Your task to perform on an android device: allow notifications from all sites in the chrome app Image 0: 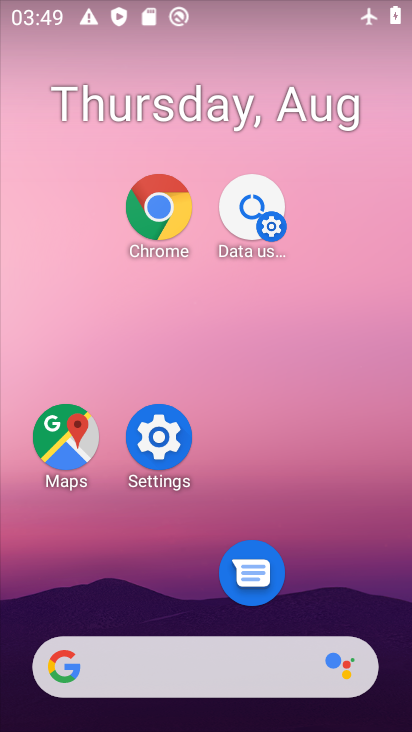
Step 0: drag from (250, 546) to (187, 229)
Your task to perform on an android device: allow notifications from all sites in the chrome app Image 1: 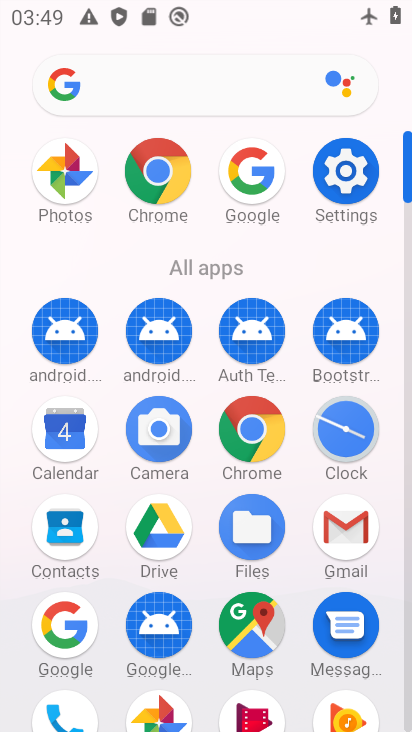
Step 1: click (174, 159)
Your task to perform on an android device: allow notifications from all sites in the chrome app Image 2: 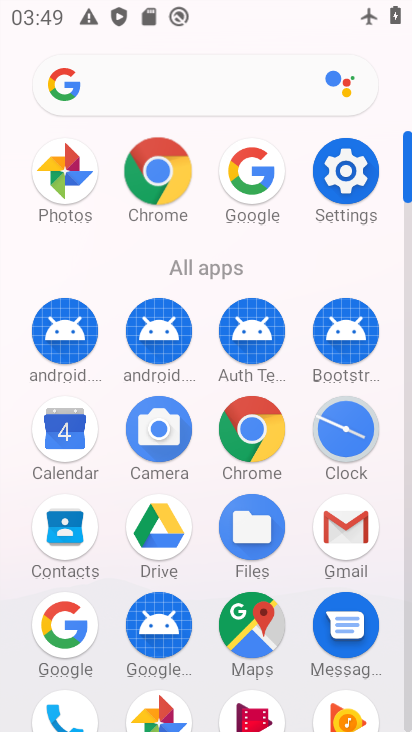
Step 2: click (164, 159)
Your task to perform on an android device: allow notifications from all sites in the chrome app Image 3: 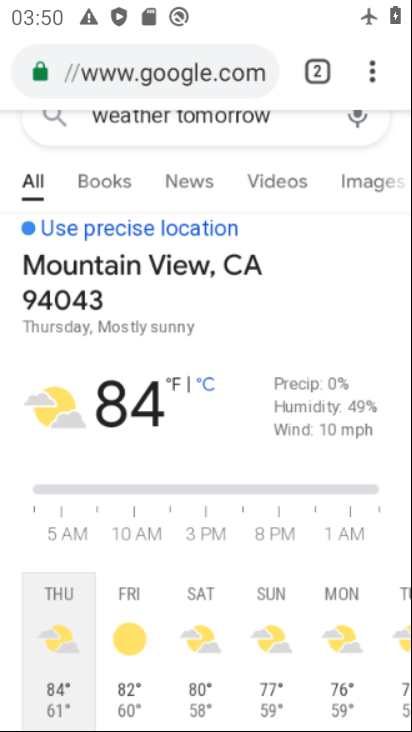
Step 3: click (165, 162)
Your task to perform on an android device: allow notifications from all sites in the chrome app Image 4: 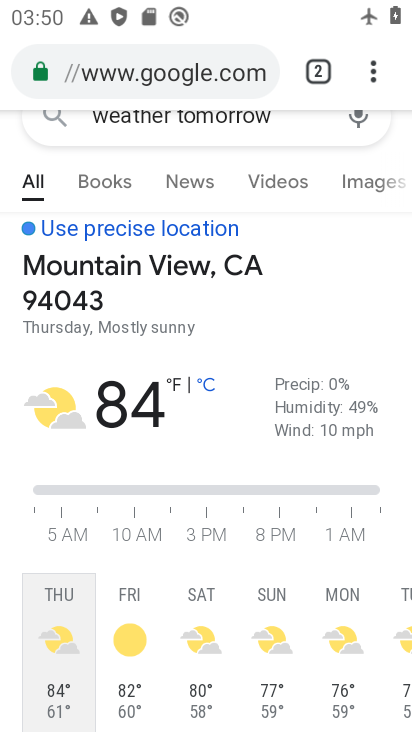
Step 4: drag from (366, 68) to (108, 569)
Your task to perform on an android device: allow notifications from all sites in the chrome app Image 5: 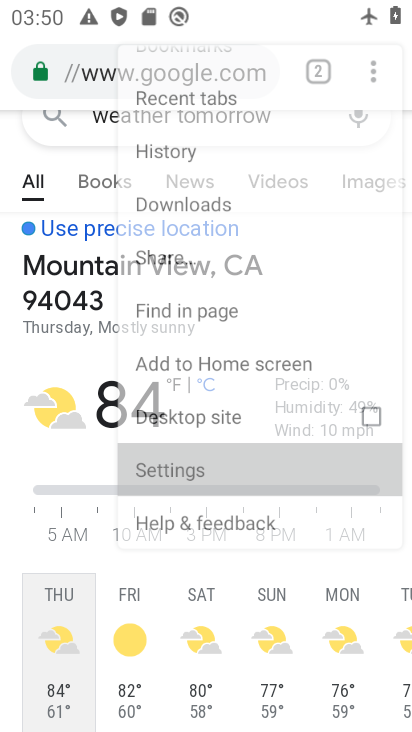
Step 5: click (114, 568)
Your task to perform on an android device: allow notifications from all sites in the chrome app Image 6: 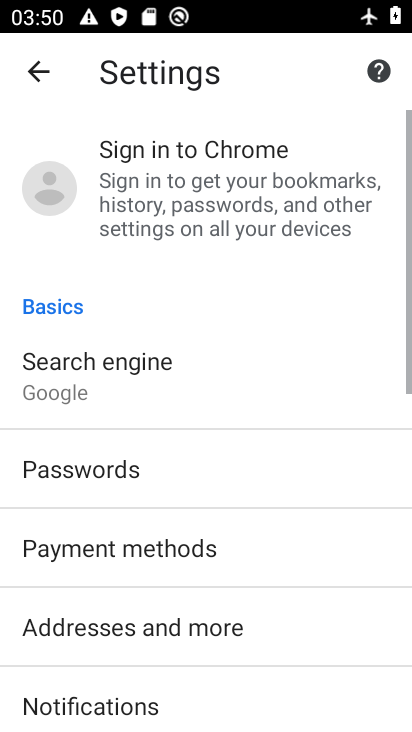
Step 6: drag from (93, 578) to (30, 226)
Your task to perform on an android device: allow notifications from all sites in the chrome app Image 7: 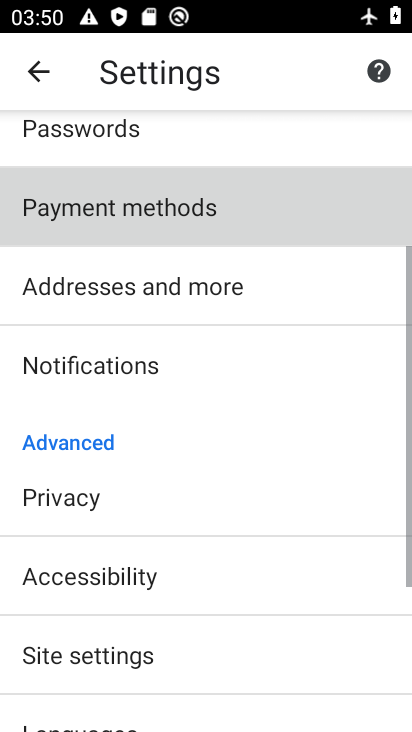
Step 7: drag from (36, 621) to (2, 404)
Your task to perform on an android device: allow notifications from all sites in the chrome app Image 8: 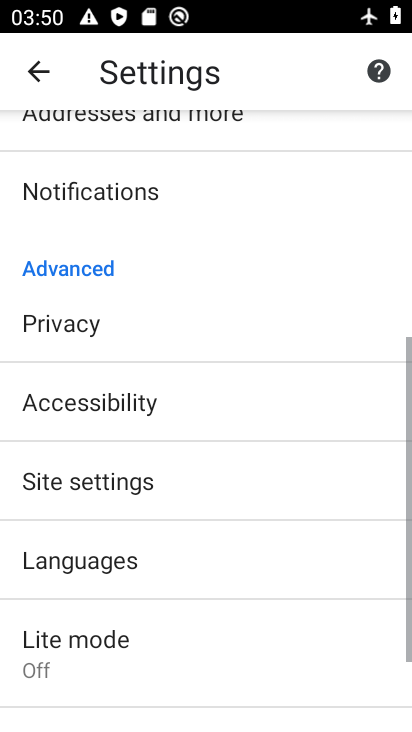
Step 8: drag from (69, 568) to (69, 334)
Your task to perform on an android device: allow notifications from all sites in the chrome app Image 9: 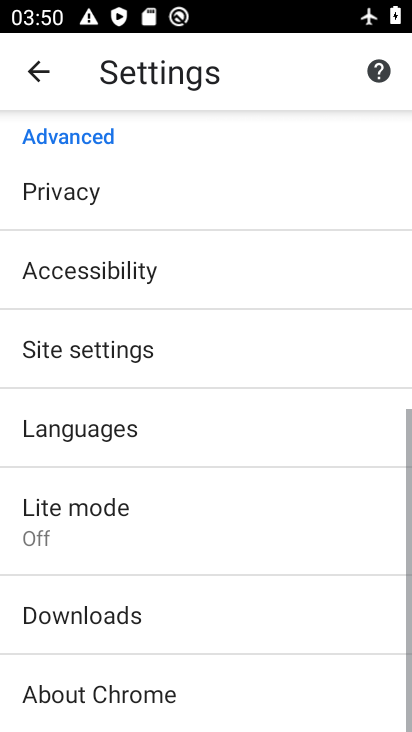
Step 9: click (90, 342)
Your task to perform on an android device: allow notifications from all sites in the chrome app Image 10: 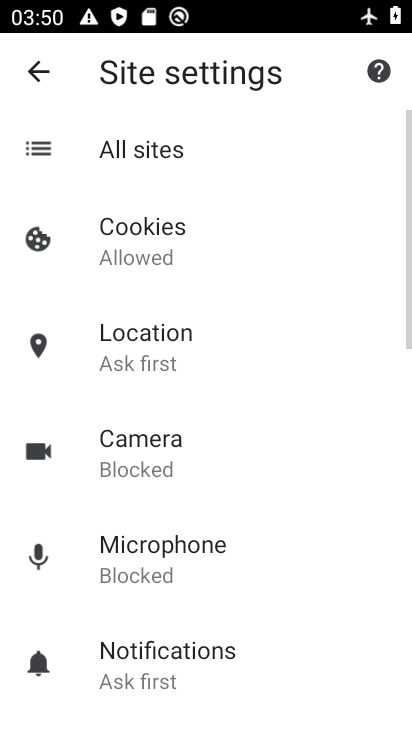
Step 10: click (155, 150)
Your task to perform on an android device: allow notifications from all sites in the chrome app Image 11: 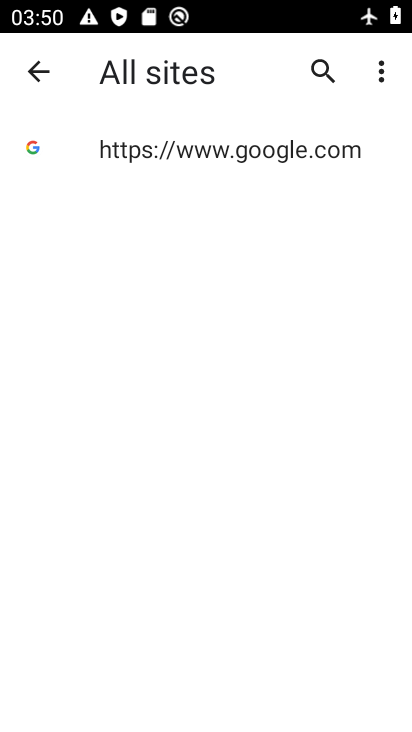
Step 11: click (193, 138)
Your task to perform on an android device: allow notifications from all sites in the chrome app Image 12: 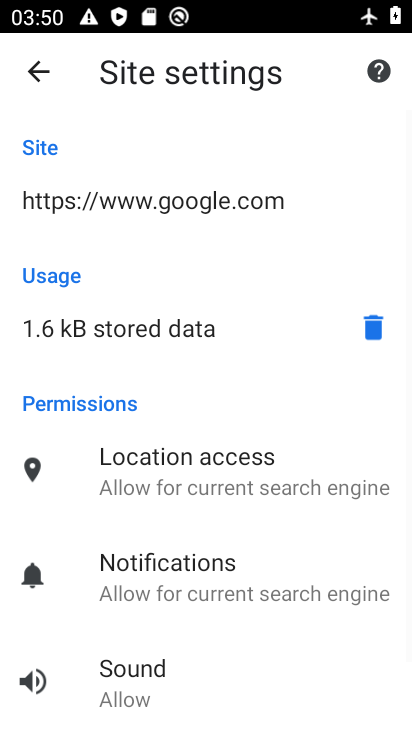
Step 12: click (104, 569)
Your task to perform on an android device: allow notifications from all sites in the chrome app Image 13: 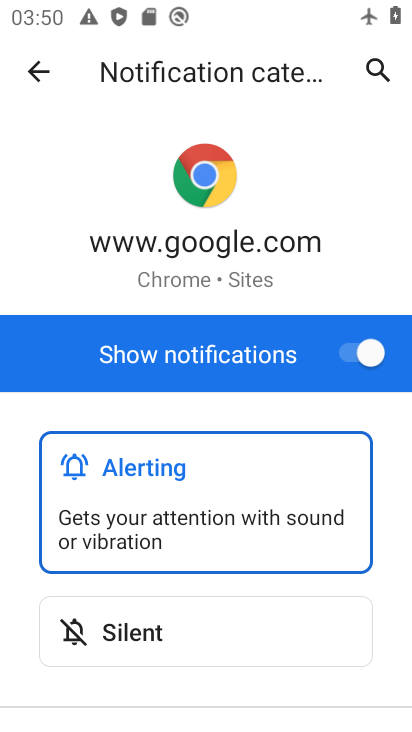
Step 13: task complete